Your task to perform on an android device: Go to display settings Image 0: 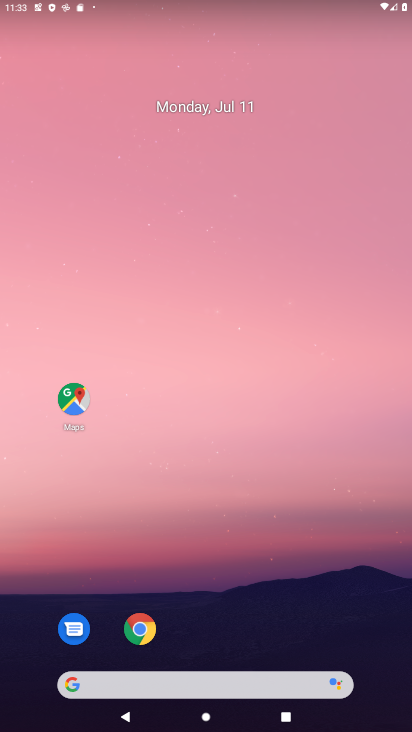
Step 0: drag from (272, 624) to (328, 1)
Your task to perform on an android device: Go to display settings Image 1: 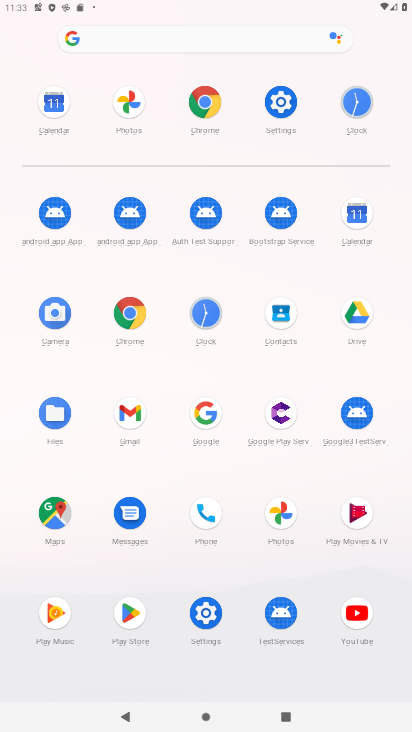
Step 1: click (270, 101)
Your task to perform on an android device: Go to display settings Image 2: 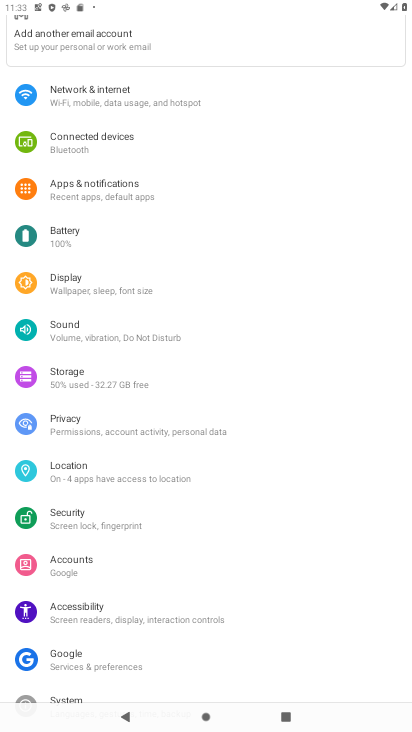
Step 2: click (110, 275)
Your task to perform on an android device: Go to display settings Image 3: 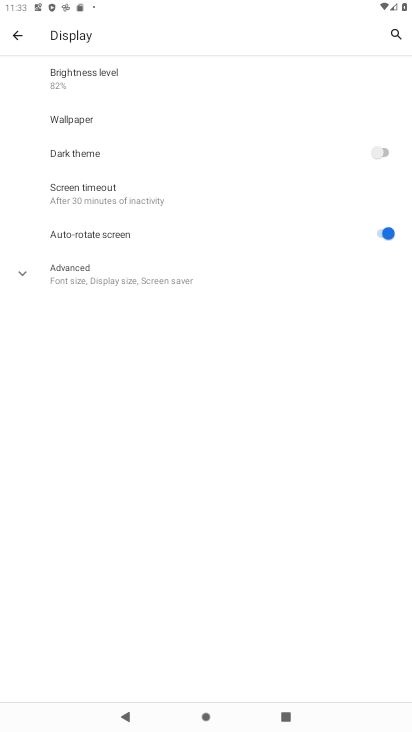
Step 3: task complete